Your task to perform on an android device: toggle translation in the chrome app Image 0: 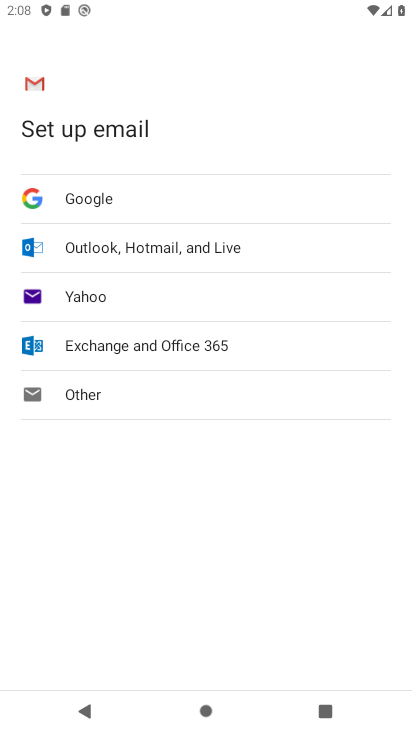
Step 0: press back button
Your task to perform on an android device: toggle translation in the chrome app Image 1: 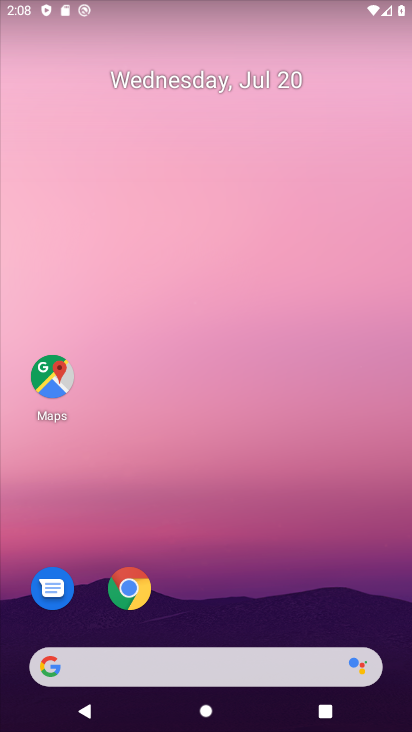
Step 1: drag from (260, 595) to (193, 147)
Your task to perform on an android device: toggle translation in the chrome app Image 2: 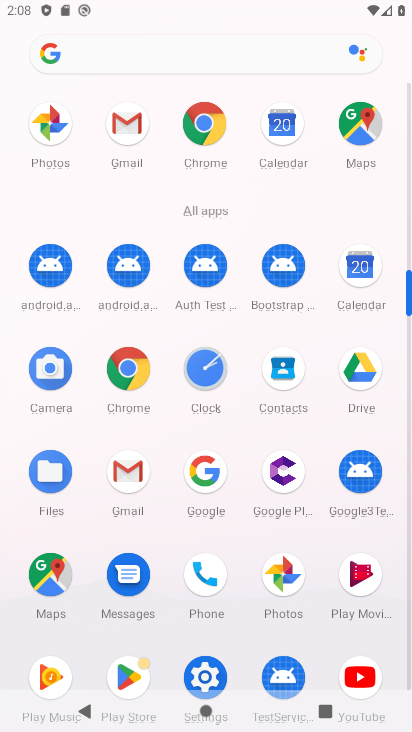
Step 2: click (211, 117)
Your task to perform on an android device: toggle translation in the chrome app Image 3: 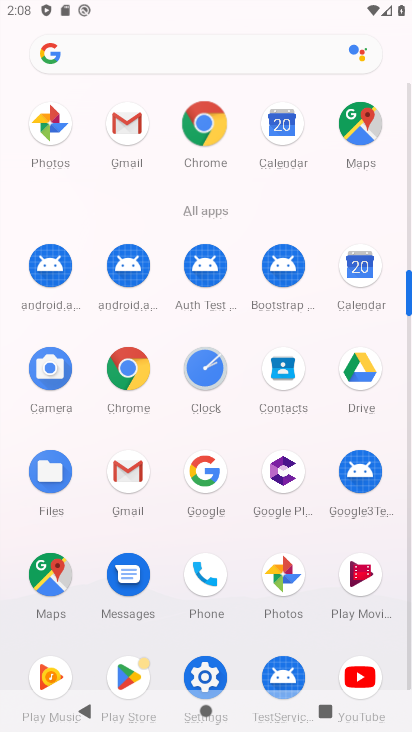
Step 3: click (212, 117)
Your task to perform on an android device: toggle translation in the chrome app Image 4: 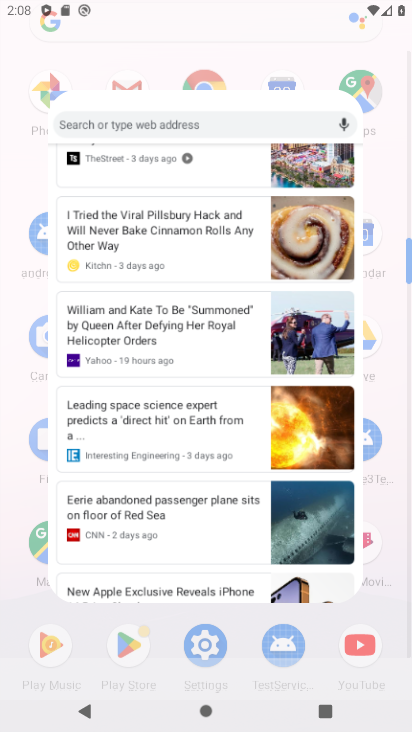
Step 4: click (212, 117)
Your task to perform on an android device: toggle translation in the chrome app Image 5: 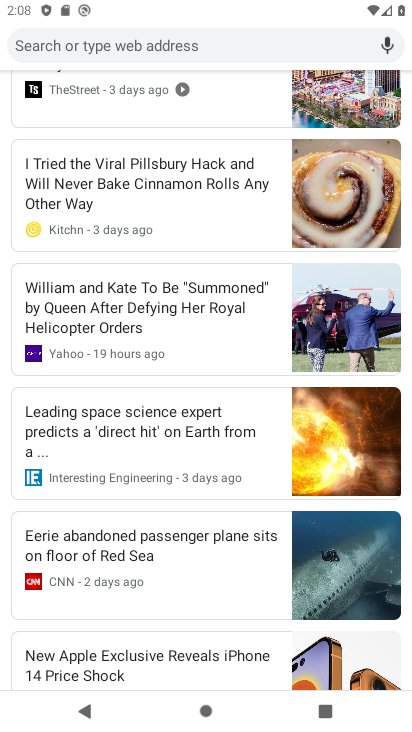
Step 5: drag from (306, 111) to (288, 448)
Your task to perform on an android device: toggle translation in the chrome app Image 6: 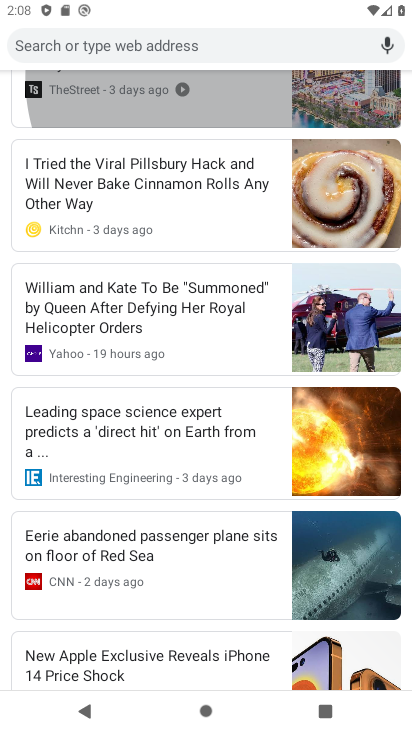
Step 6: drag from (264, 170) to (282, 443)
Your task to perform on an android device: toggle translation in the chrome app Image 7: 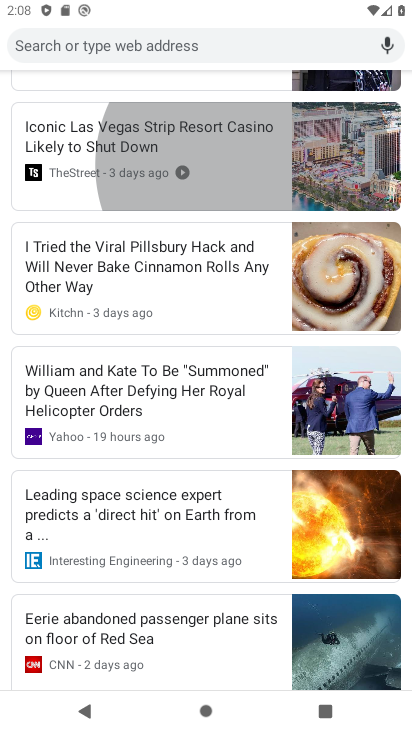
Step 7: drag from (281, 165) to (285, 398)
Your task to perform on an android device: toggle translation in the chrome app Image 8: 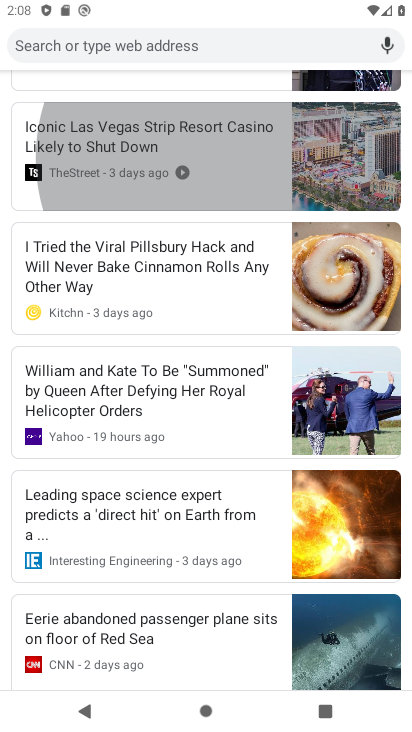
Step 8: drag from (284, 199) to (284, 397)
Your task to perform on an android device: toggle translation in the chrome app Image 9: 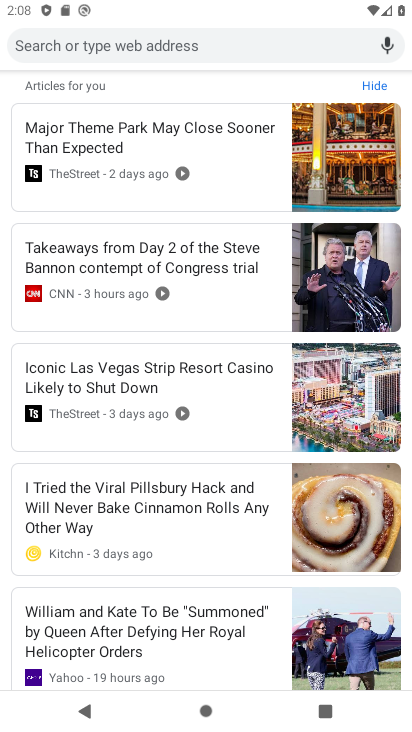
Step 9: drag from (284, 222) to (274, 416)
Your task to perform on an android device: toggle translation in the chrome app Image 10: 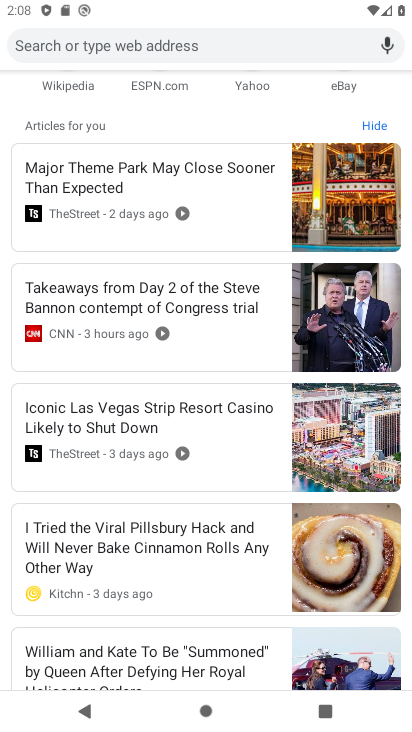
Step 10: drag from (227, 121) to (258, 321)
Your task to perform on an android device: toggle translation in the chrome app Image 11: 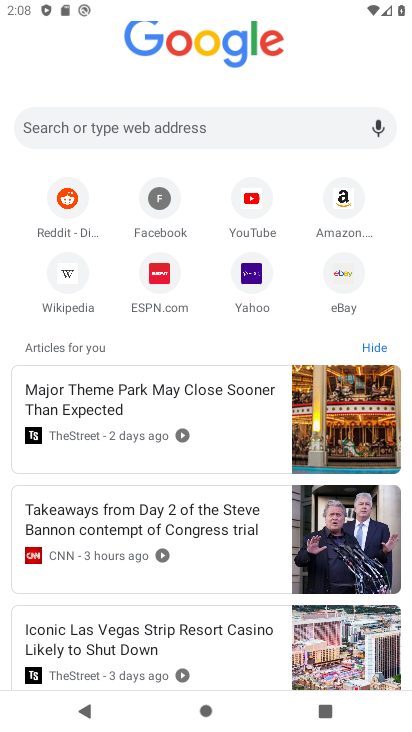
Step 11: drag from (251, 169) to (288, 447)
Your task to perform on an android device: toggle translation in the chrome app Image 12: 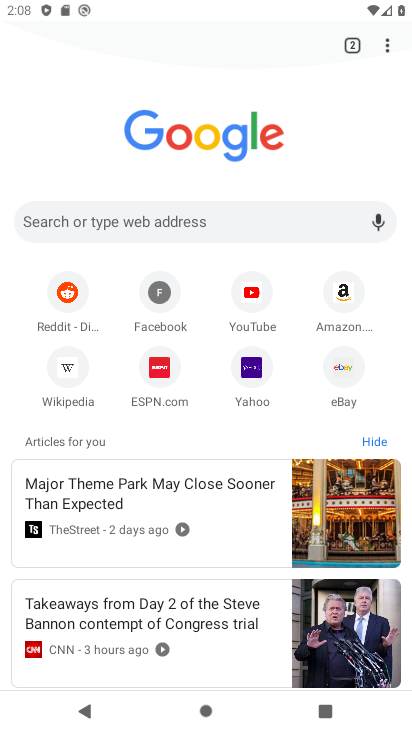
Step 12: drag from (272, 318) to (281, 496)
Your task to perform on an android device: toggle translation in the chrome app Image 13: 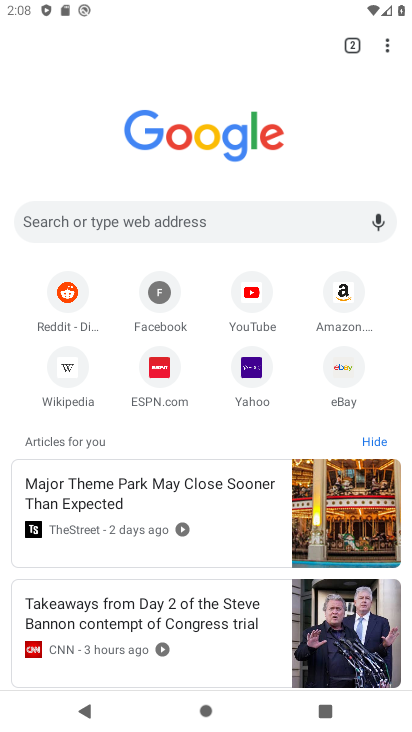
Step 13: drag from (389, 54) to (221, 383)
Your task to perform on an android device: toggle translation in the chrome app Image 14: 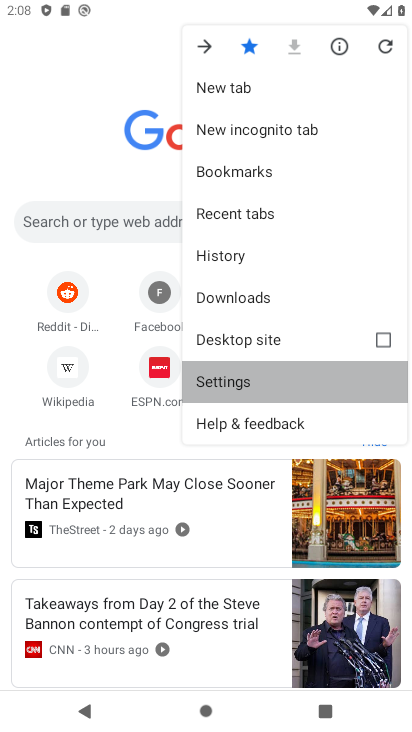
Step 14: click (219, 382)
Your task to perform on an android device: toggle translation in the chrome app Image 15: 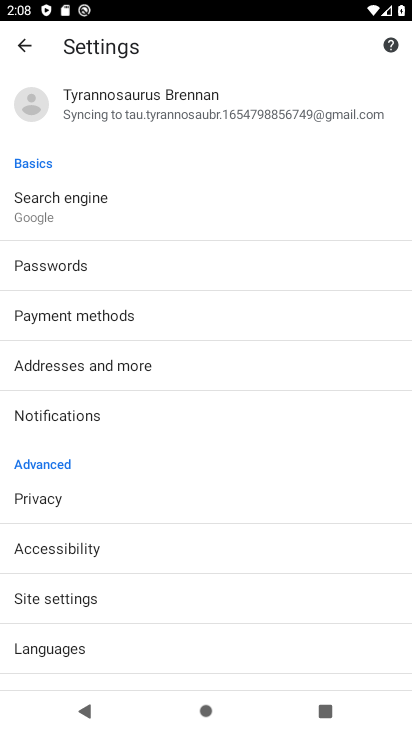
Step 15: drag from (165, 577) to (133, 253)
Your task to perform on an android device: toggle translation in the chrome app Image 16: 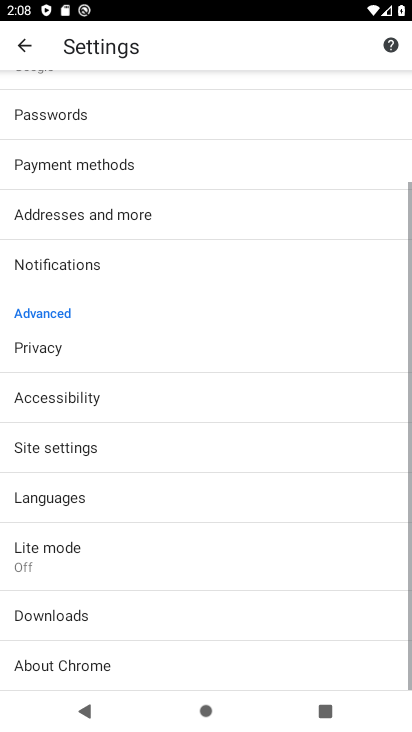
Step 16: drag from (189, 471) to (218, 323)
Your task to perform on an android device: toggle translation in the chrome app Image 17: 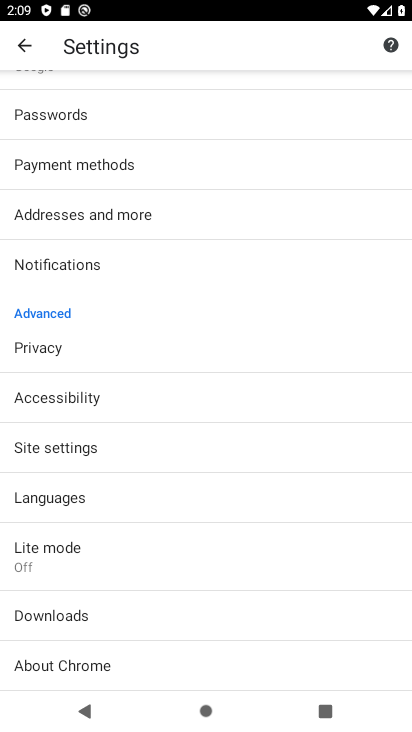
Step 17: click (117, 496)
Your task to perform on an android device: toggle translation in the chrome app Image 18: 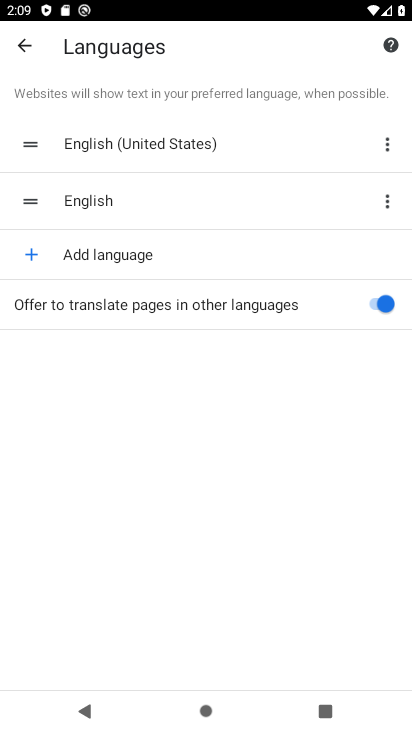
Step 18: click (383, 303)
Your task to perform on an android device: toggle translation in the chrome app Image 19: 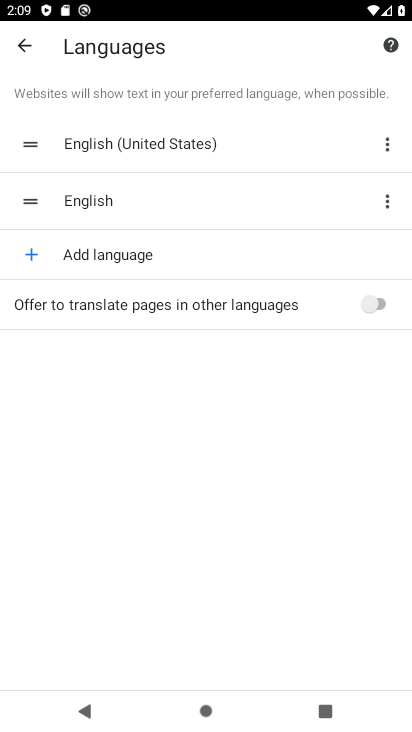
Step 19: task complete